Your task to perform on an android device: open app "Google Sheets" Image 0: 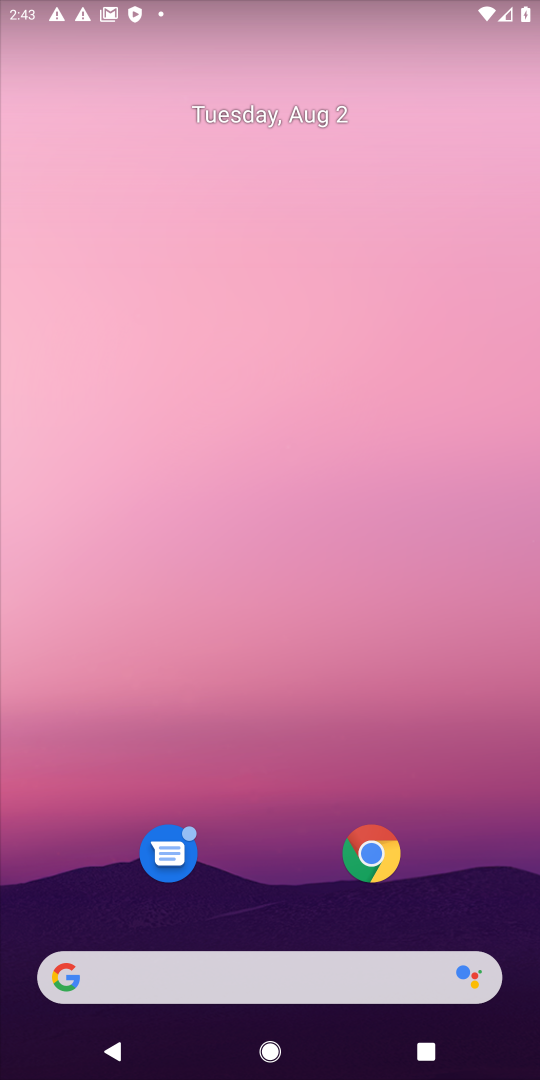
Step 0: drag from (258, 837) to (340, 46)
Your task to perform on an android device: open app "Google Sheets" Image 1: 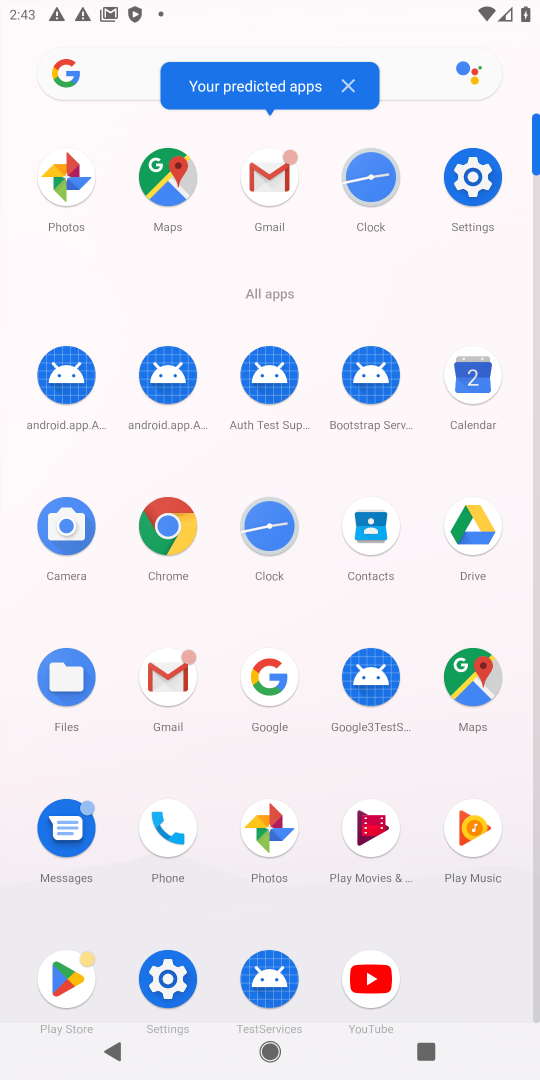
Step 1: click (54, 965)
Your task to perform on an android device: open app "Google Sheets" Image 2: 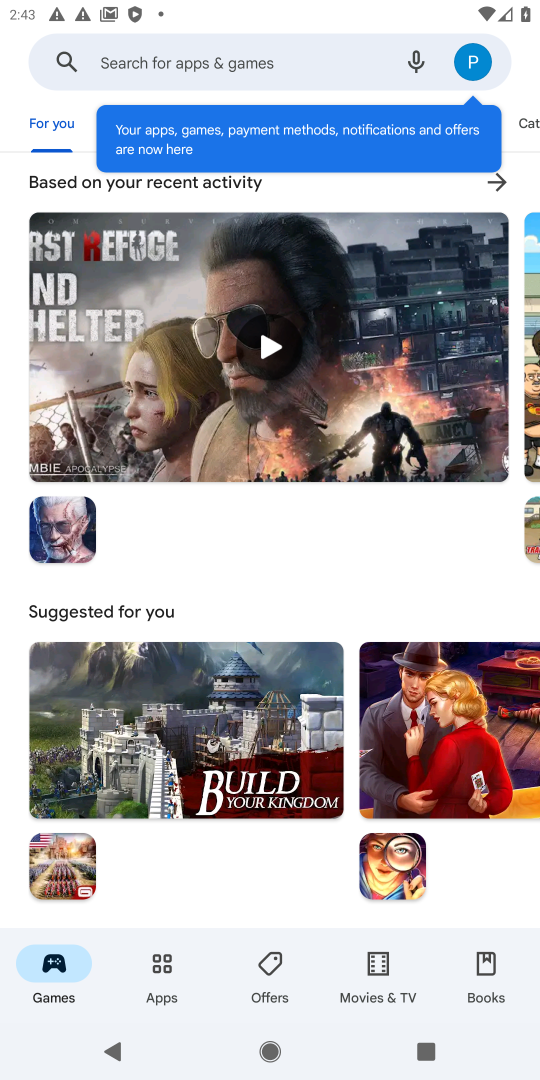
Step 2: click (175, 57)
Your task to perform on an android device: open app "Google Sheets" Image 3: 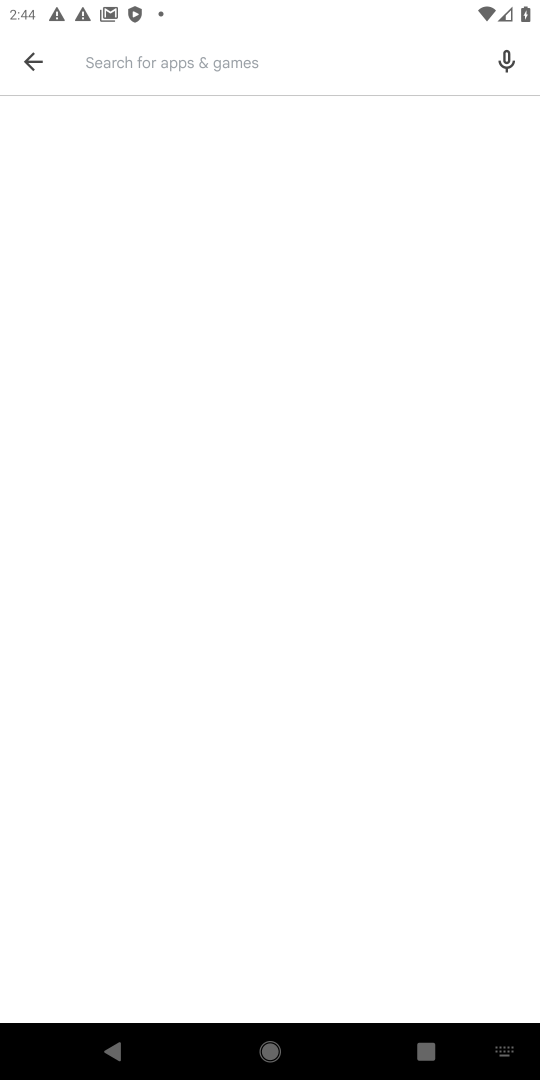
Step 3: type "google sheets"
Your task to perform on an android device: open app "Google Sheets" Image 4: 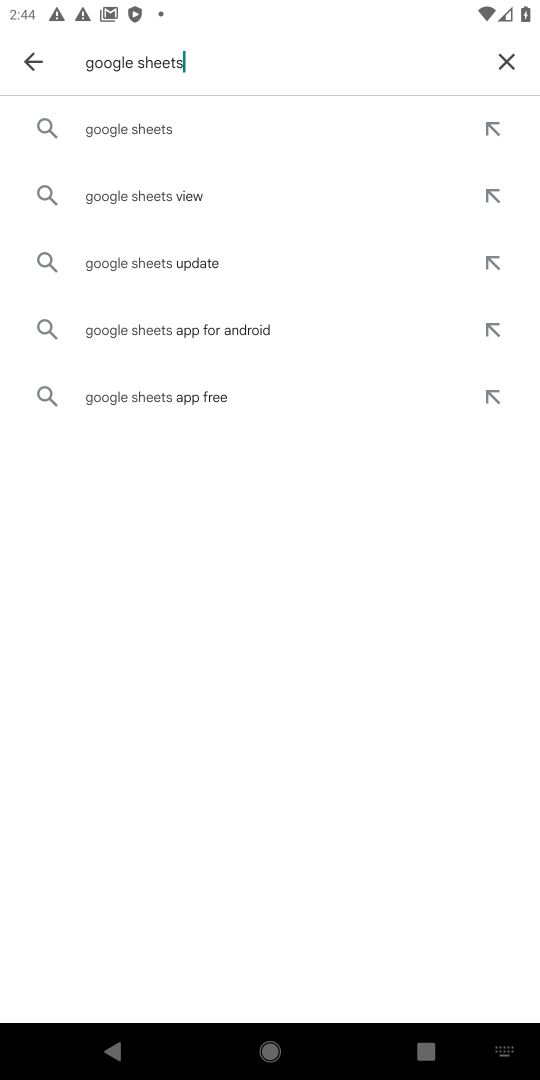
Step 4: click (152, 143)
Your task to perform on an android device: open app "Google Sheets" Image 5: 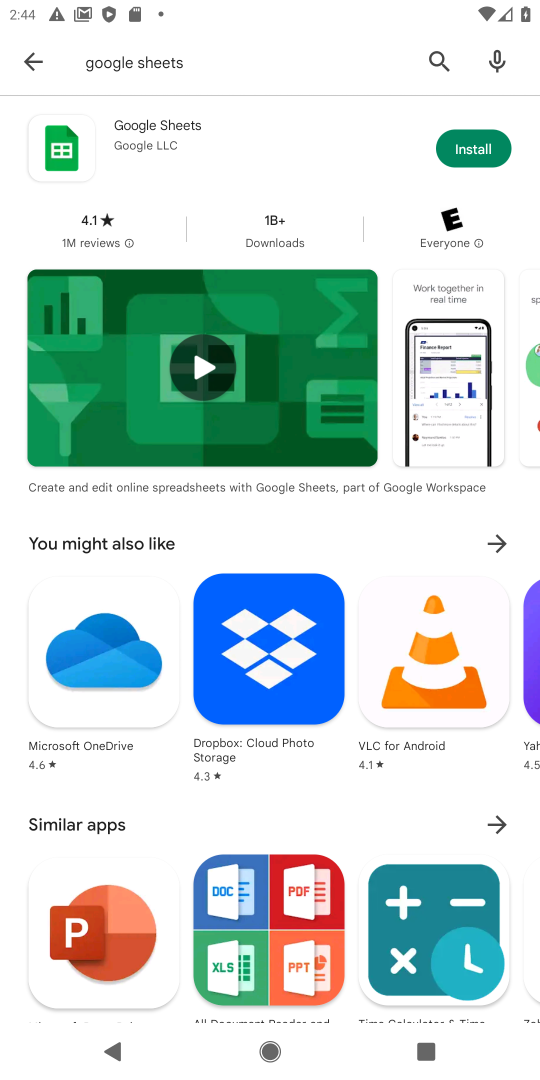
Step 5: click (210, 143)
Your task to perform on an android device: open app "Google Sheets" Image 6: 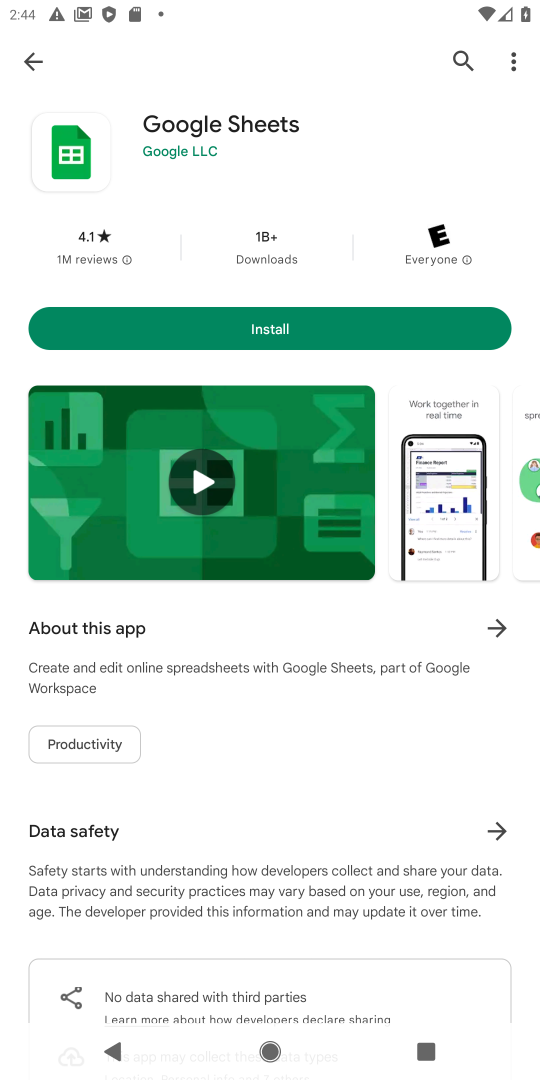
Step 6: task complete